Your task to perform on an android device: toggle notification dots Image 0: 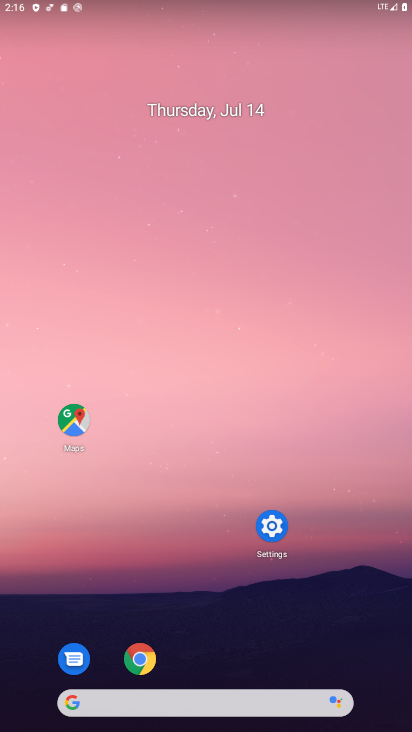
Step 0: click (278, 548)
Your task to perform on an android device: toggle notification dots Image 1: 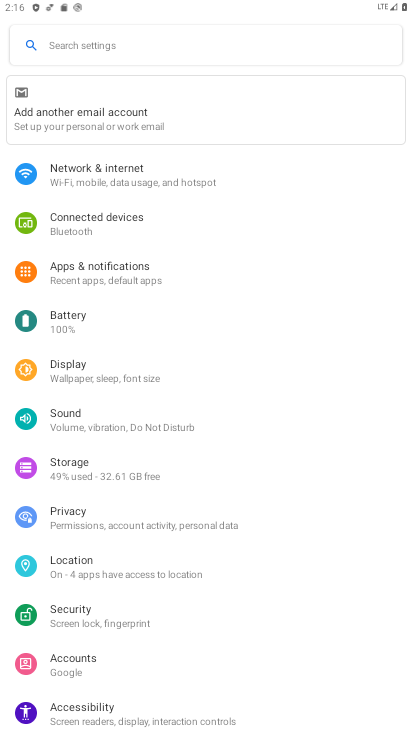
Step 1: click (115, 53)
Your task to perform on an android device: toggle notification dots Image 2: 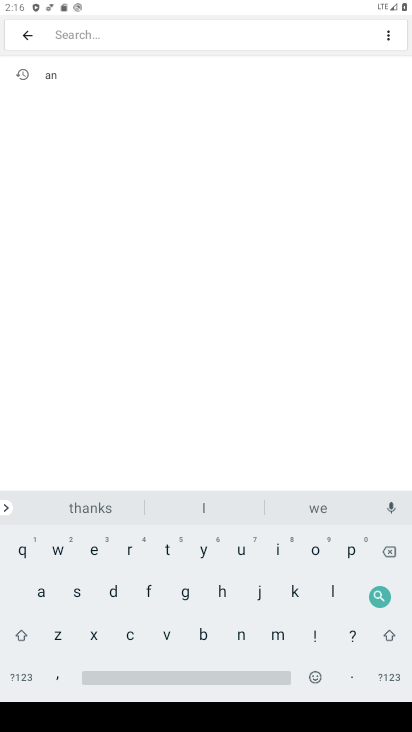
Step 2: click (107, 600)
Your task to perform on an android device: toggle notification dots Image 3: 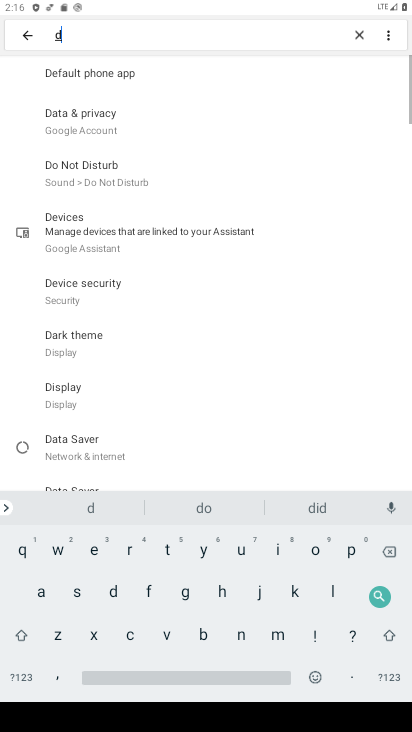
Step 3: click (314, 555)
Your task to perform on an android device: toggle notification dots Image 4: 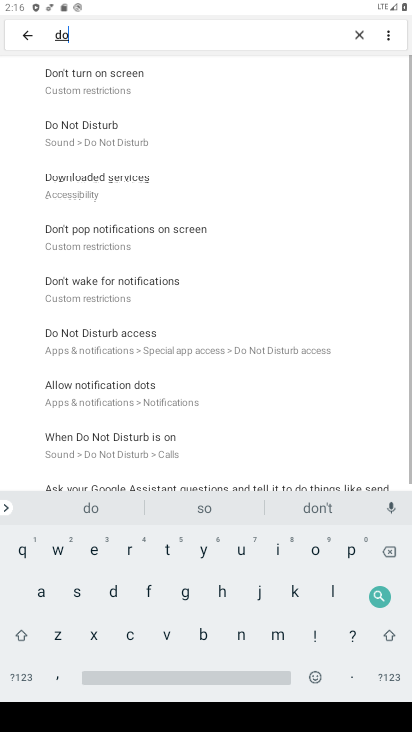
Step 4: click (166, 552)
Your task to perform on an android device: toggle notification dots Image 5: 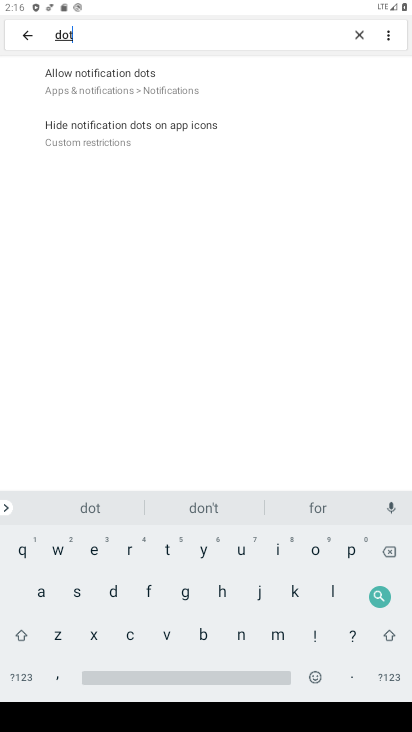
Step 5: click (132, 82)
Your task to perform on an android device: toggle notification dots Image 6: 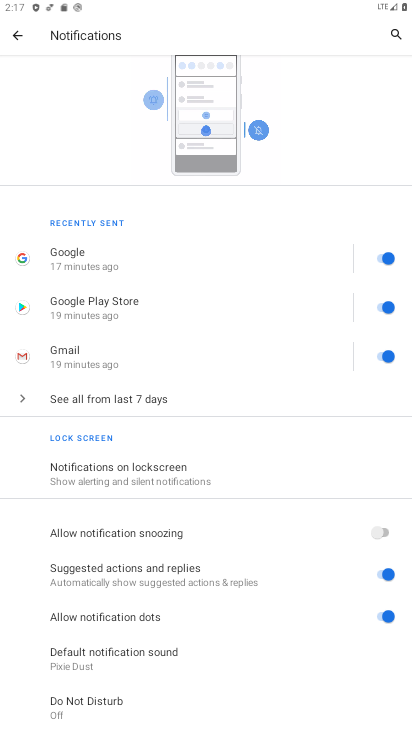
Step 6: task complete